Your task to perform on an android device: choose inbox layout in the gmail app Image 0: 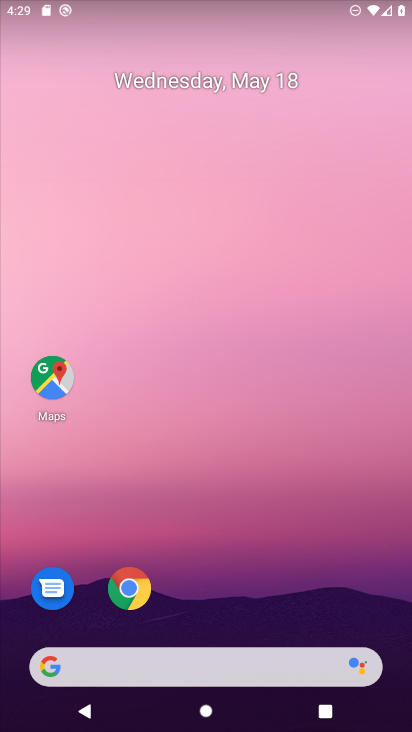
Step 0: drag from (255, 630) to (255, 148)
Your task to perform on an android device: choose inbox layout in the gmail app Image 1: 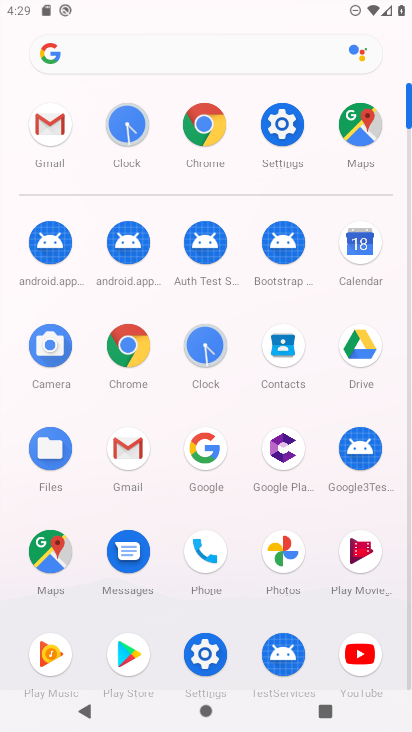
Step 1: click (54, 132)
Your task to perform on an android device: choose inbox layout in the gmail app Image 2: 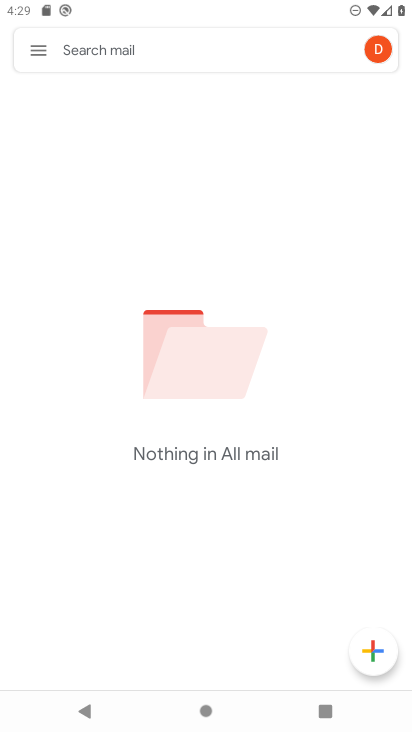
Step 2: click (36, 53)
Your task to perform on an android device: choose inbox layout in the gmail app Image 3: 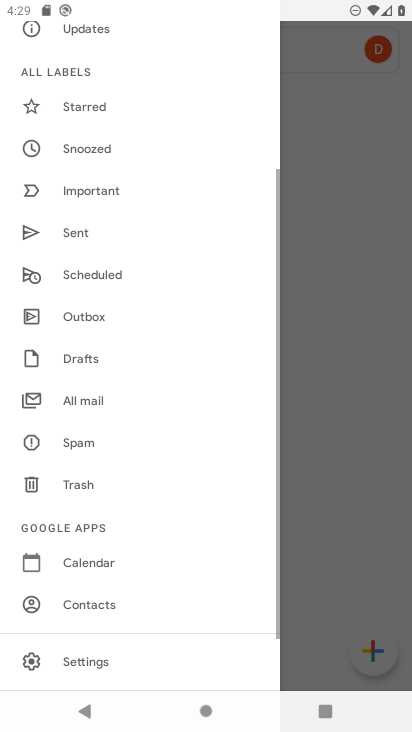
Step 3: drag from (138, 202) to (132, 718)
Your task to perform on an android device: choose inbox layout in the gmail app Image 4: 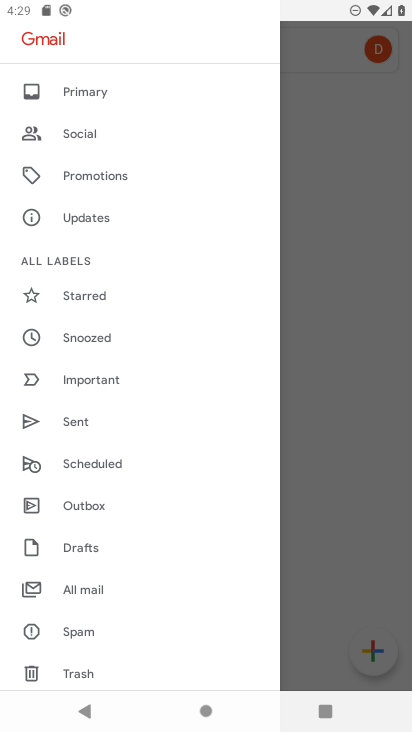
Step 4: click (84, 107)
Your task to perform on an android device: choose inbox layout in the gmail app Image 5: 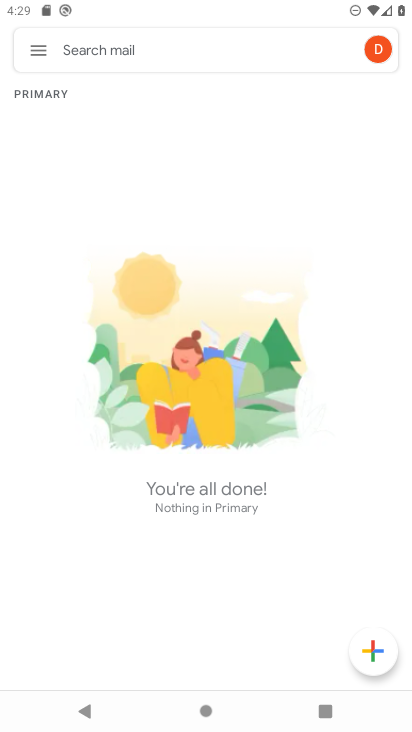
Step 5: task complete